Your task to perform on an android device: When is my next appointment? Image 0: 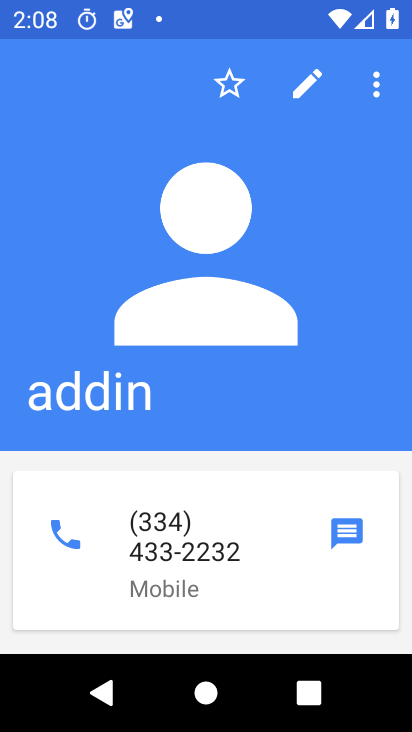
Step 0: press home button
Your task to perform on an android device: When is my next appointment? Image 1: 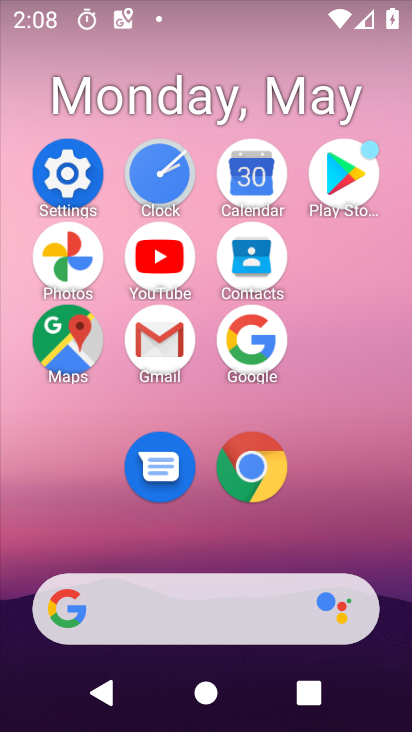
Step 1: click (265, 175)
Your task to perform on an android device: When is my next appointment? Image 2: 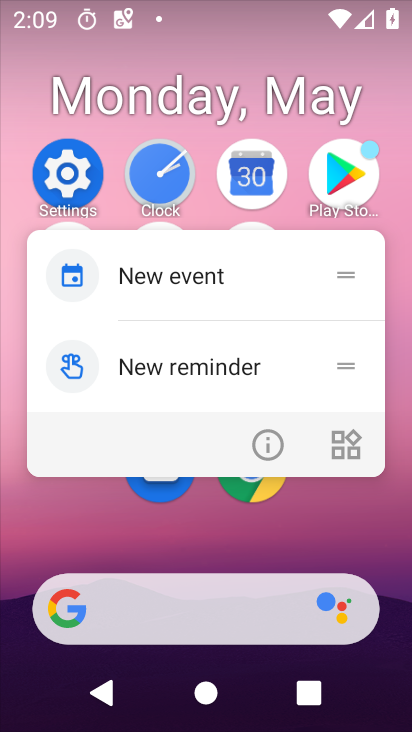
Step 2: click (262, 178)
Your task to perform on an android device: When is my next appointment? Image 3: 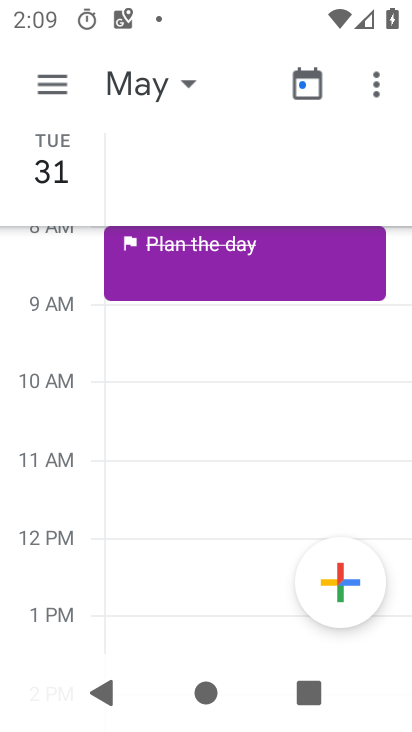
Step 3: task complete